Your task to perform on an android device: allow notifications from all sites in the chrome app Image 0: 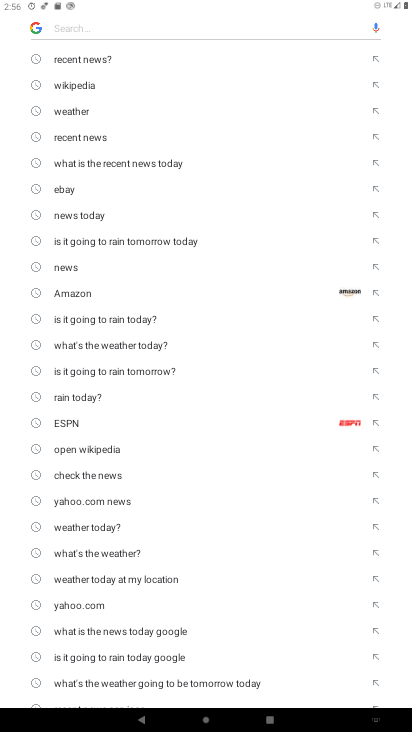
Step 0: press home button
Your task to perform on an android device: allow notifications from all sites in the chrome app Image 1: 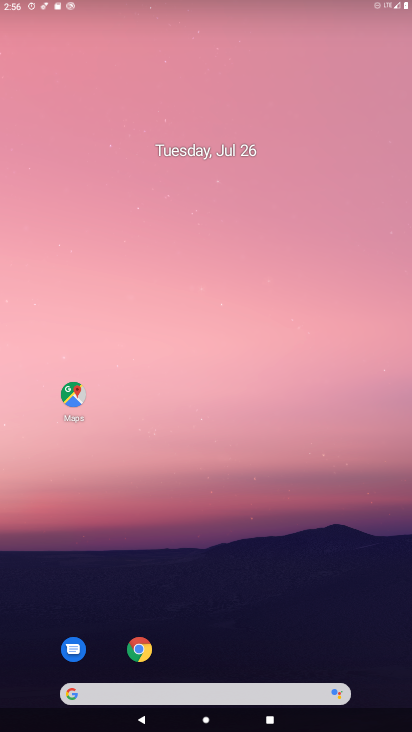
Step 1: drag from (381, 661) to (200, 40)
Your task to perform on an android device: allow notifications from all sites in the chrome app Image 2: 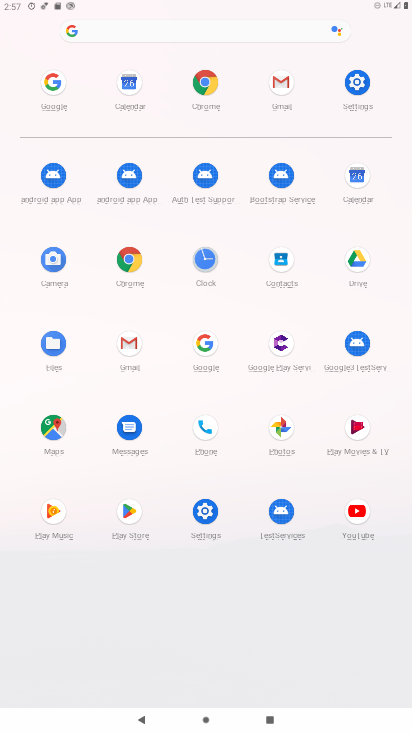
Step 2: click (125, 257)
Your task to perform on an android device: allow notifications from all sites in the chrome app Image 3: 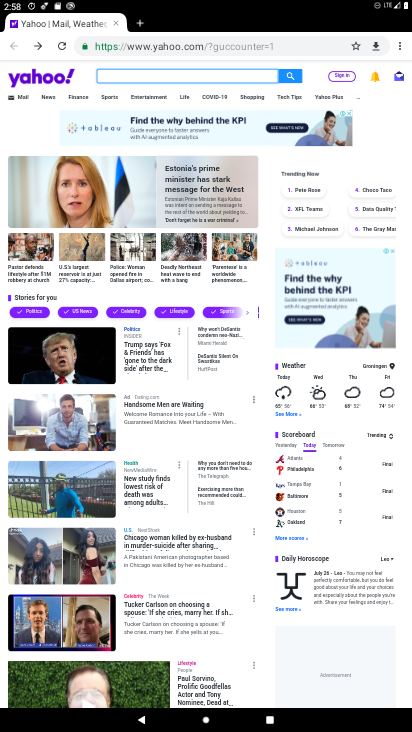
Step 3: click (395, 37)
Your task to perform on an android device: allow notifications from all sites in the chrome app Image 4: 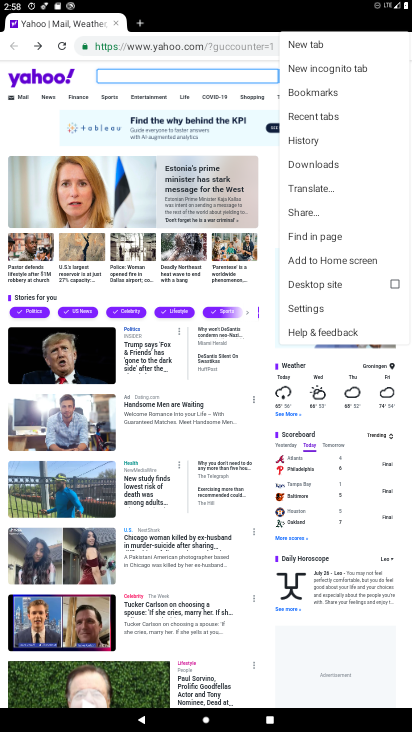
Step 4: click (313, 307)
Your task to perform on an android device: allow notifications from all sites in the chrome app Image 5: 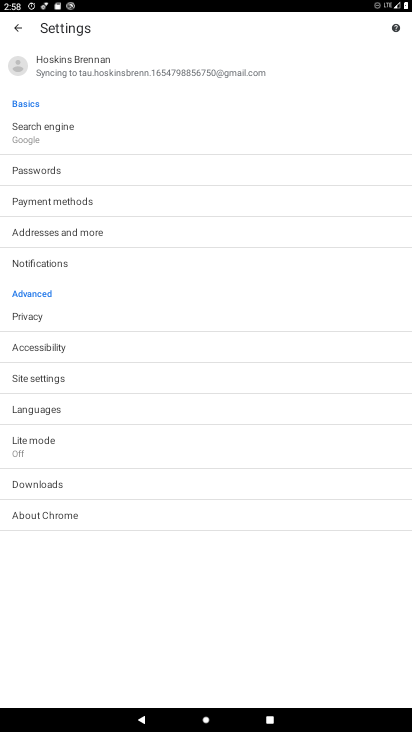
Step 5: click (87, 274)
Your task to perform on an android device: allow notifications from all sites in the chrome app Image 6: 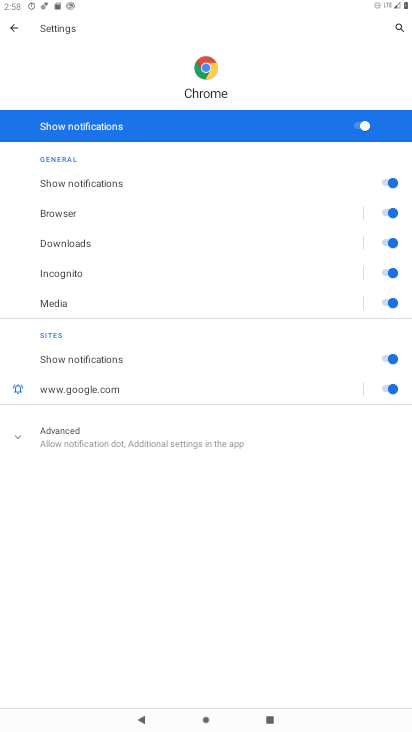
Step 6: task complete